Your task to perform on an android device: Go to network settings Image 0: 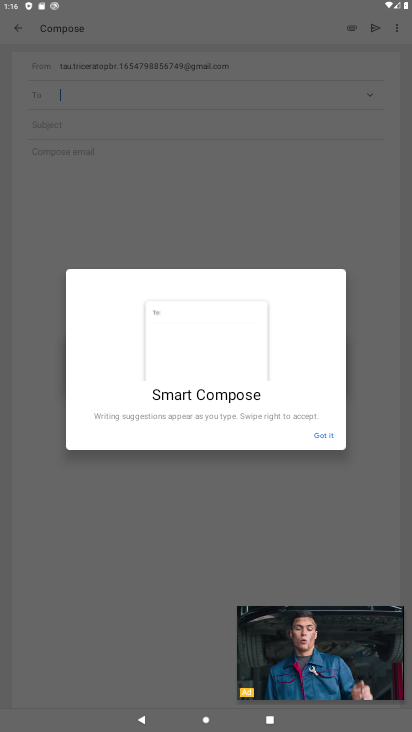
Step 0: press home button
Your task to perform on an android device: Go to network settings Image 1: 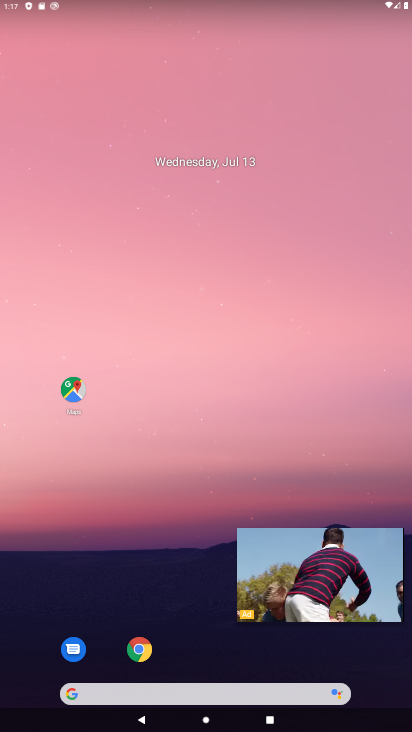
Step 1: drag from (154, 682) to (232, 92)
Your task to perform on an android device: Go to network settings Image 2: 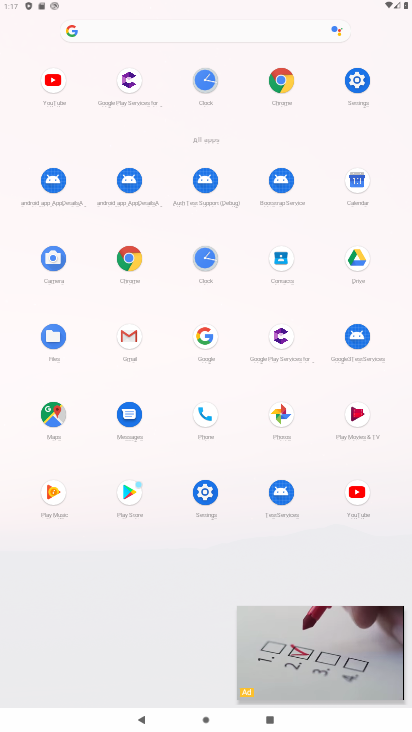
Step 2: click (210, 488)
Your task to perform on an android device: Go to network settings Image 3: 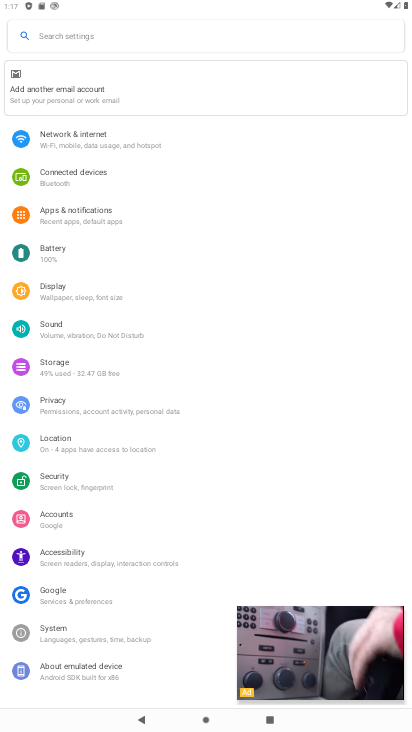
Step 3: click (93, 141)
Your task to perform on an android device: Go to network settings Image 4: 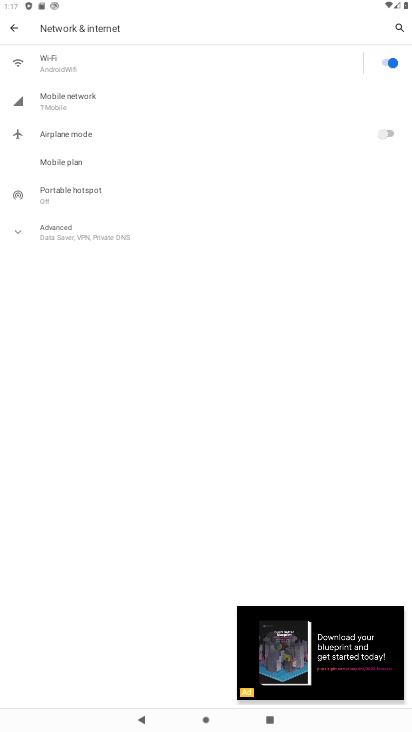
Step 4: click (98, 96)
Your task to perform on an android device: Go to network settings Image 5: 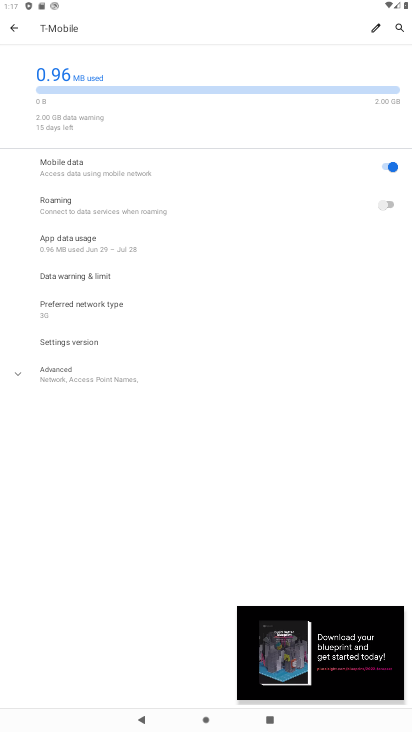
Step 5: task complete